Your task to perform on an android device: Add "razer thresher" to the cart on amazon.com, then select checkout. Image 0: 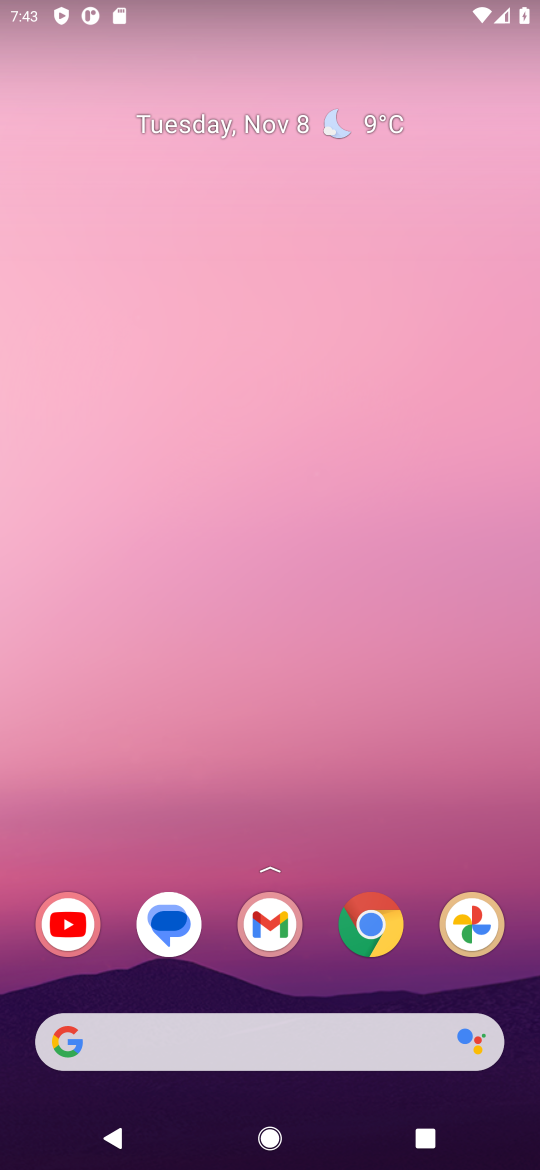
Step 0: click (241, 1038)
Your task to perform on an android device: Add "razer thresher" to the cart on amazon.com, then select checkout. Image 1: 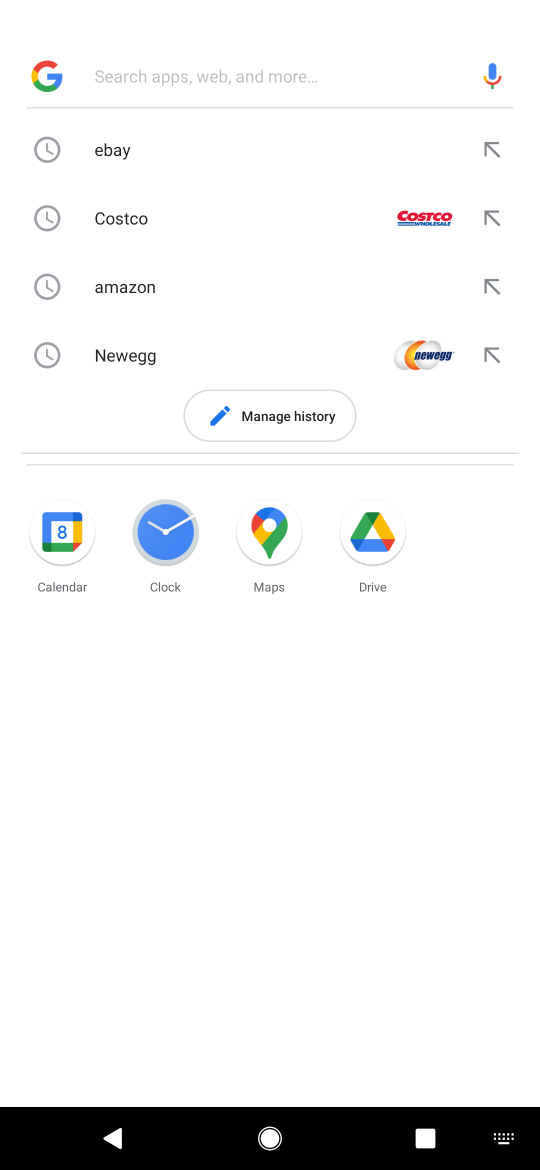
Step 1: click (136, 282)
Your task to perform on an android device: Add "razer thresher" to the cart on amazon.com, then select checkout. Image 2: 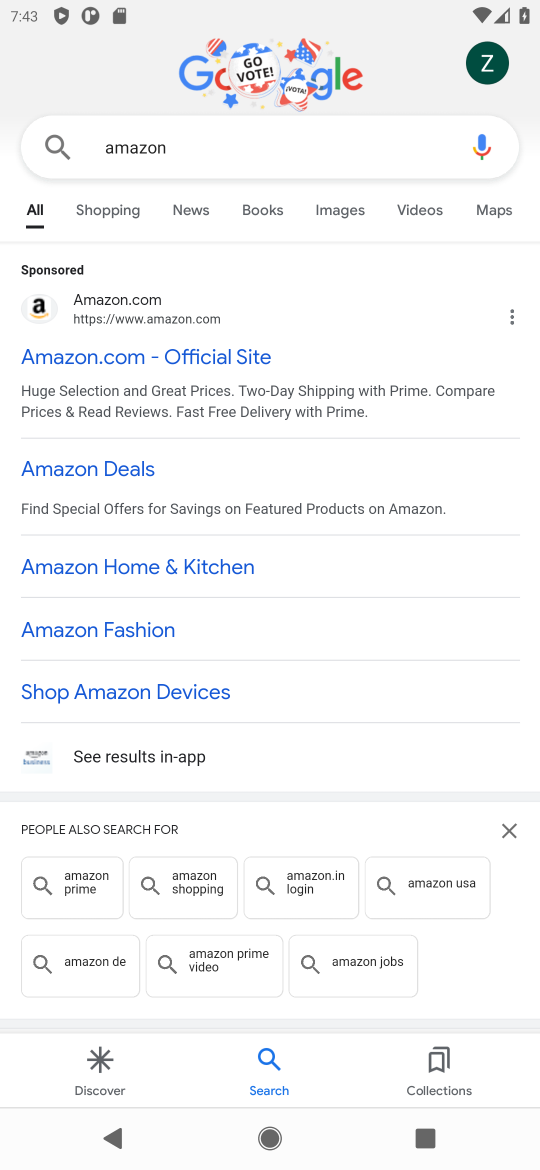
Step 2: click (93, 309)
Your task to perform on an android device: Add "razer thresher" to the cart on amazon.com, then select checkout. Image 3: 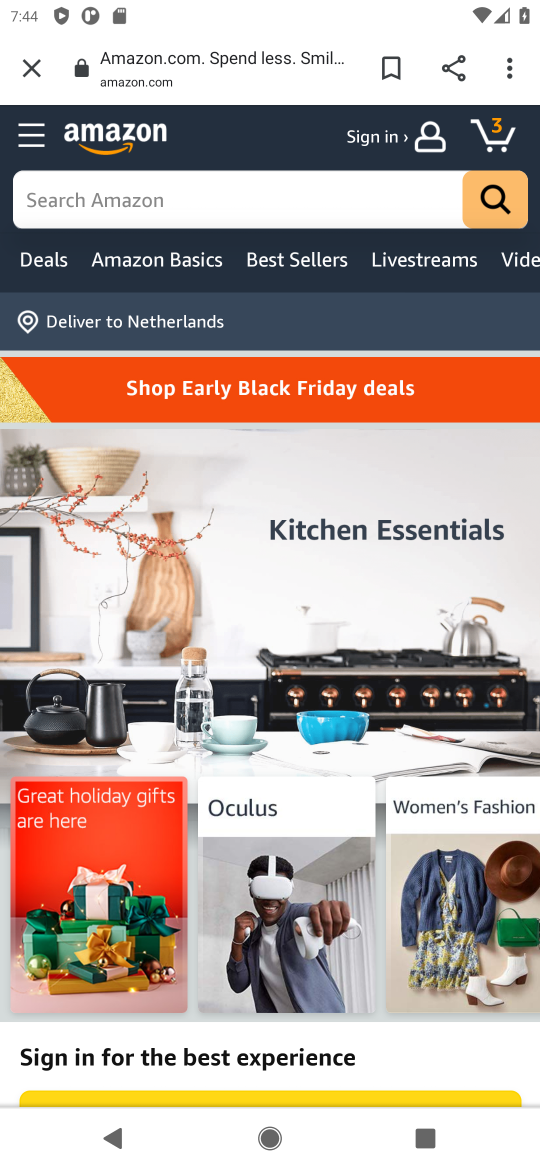
Step 3: click (93, 309)
Your task to perform on an android device: Add "razer thresher" to the cart on amazon.com, then select checkout. Image 4: 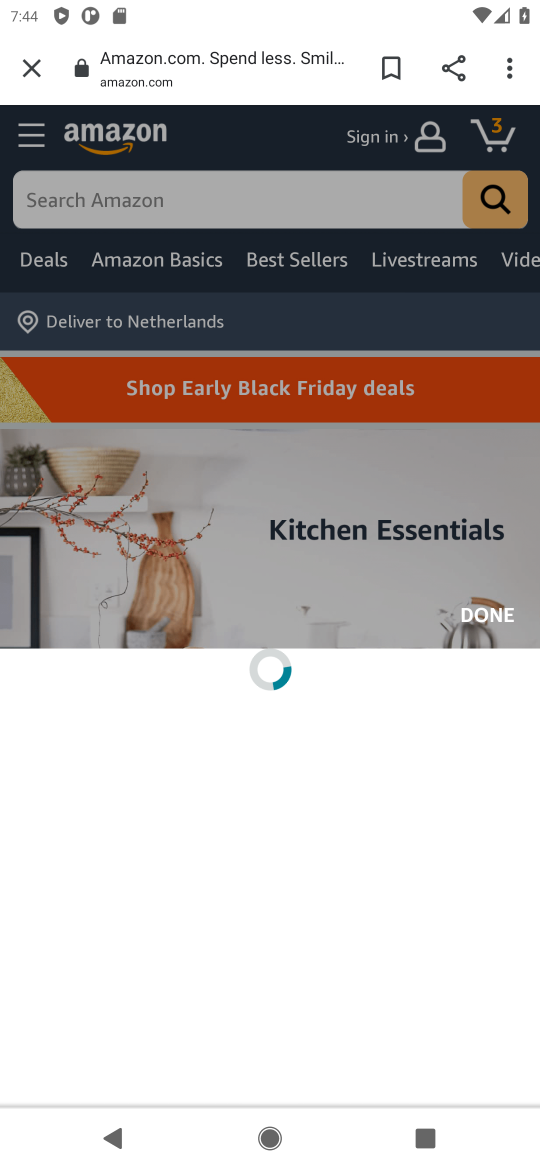
Step 4: click (93, 309)
Your task to perform on an android device: Add "razer thresher" to the cart on amazon.com, then select checkout. Image 5: 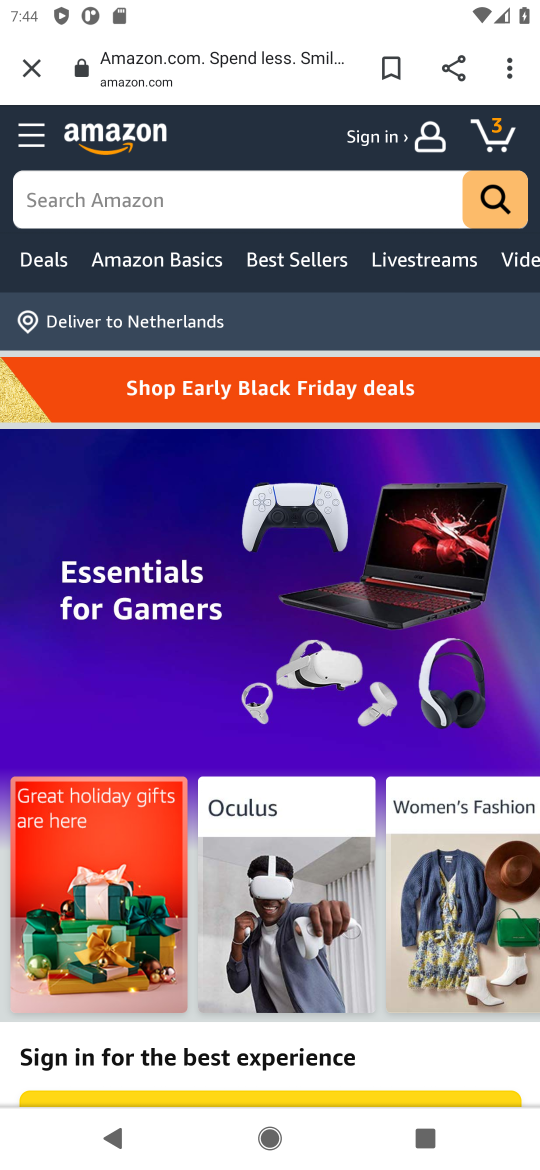
Step 5: click (245, 688)
Your task to perform on an android device: Add "razer thresher" to the cart on amazon.com, then select checkout. Image 6: 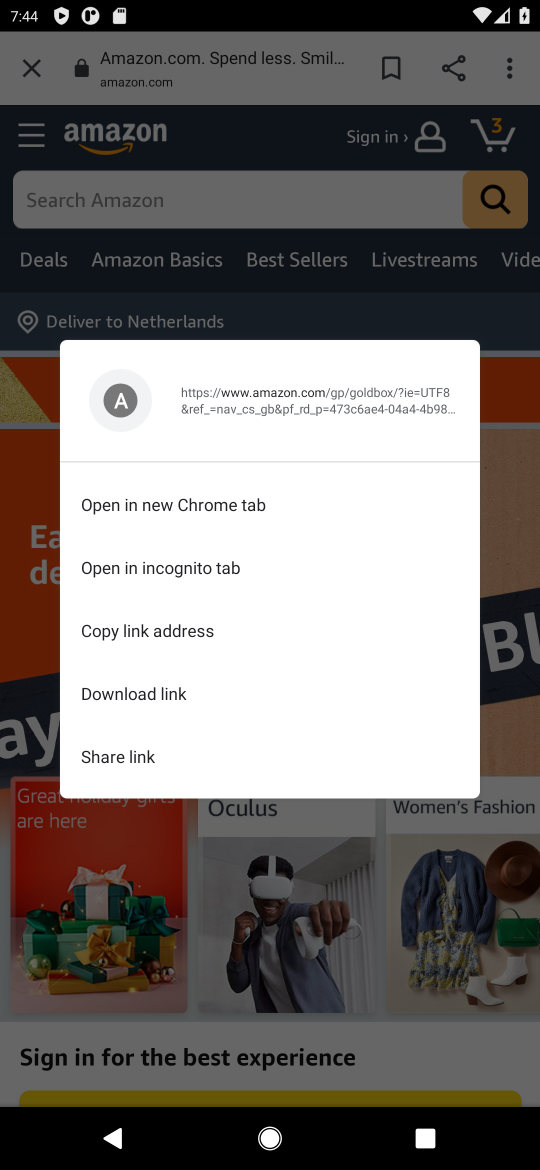
Step 6: click (132, 201)
Your task to perform on an android device: Add "razer thresher" to the cart on amazon.com, then select checkout. Image 7: 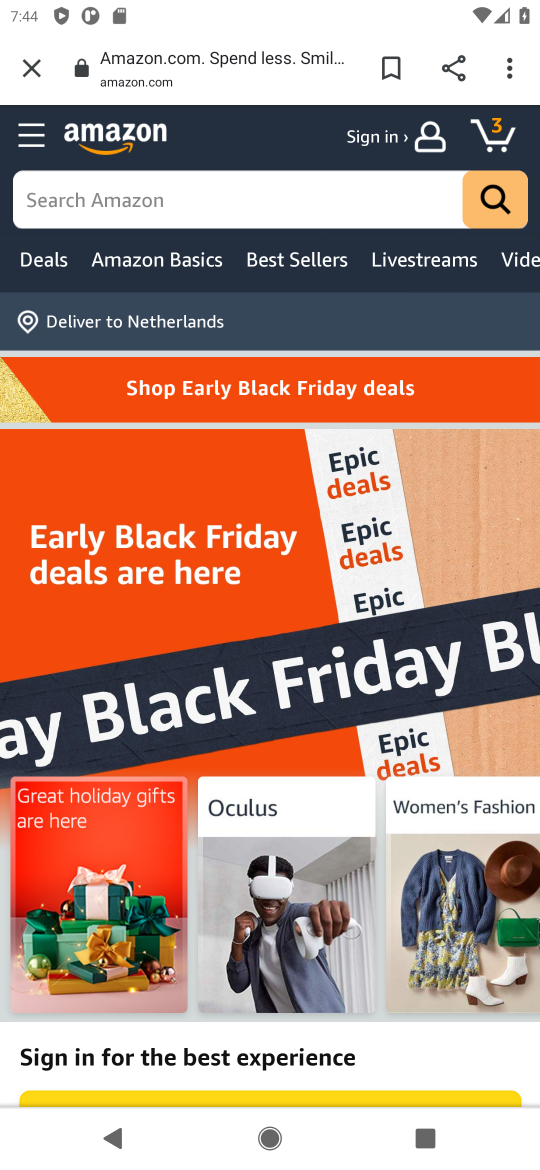
Step 7: click (132, 201)
Your task to perform on an android device: Add "razer thresher" to the cart on amazon.com, then select checkout. Image 8: 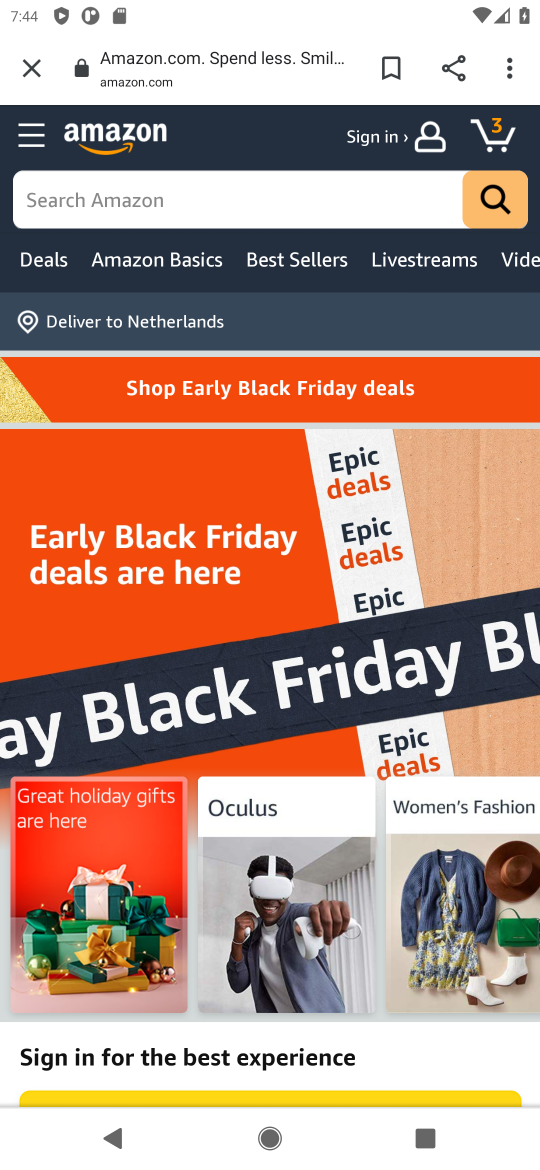
Step 8: click (132, 201)
Your task to perform on an android device: Add "razer thresher" to the cart on amazon.com, then select checkout. Image 9: 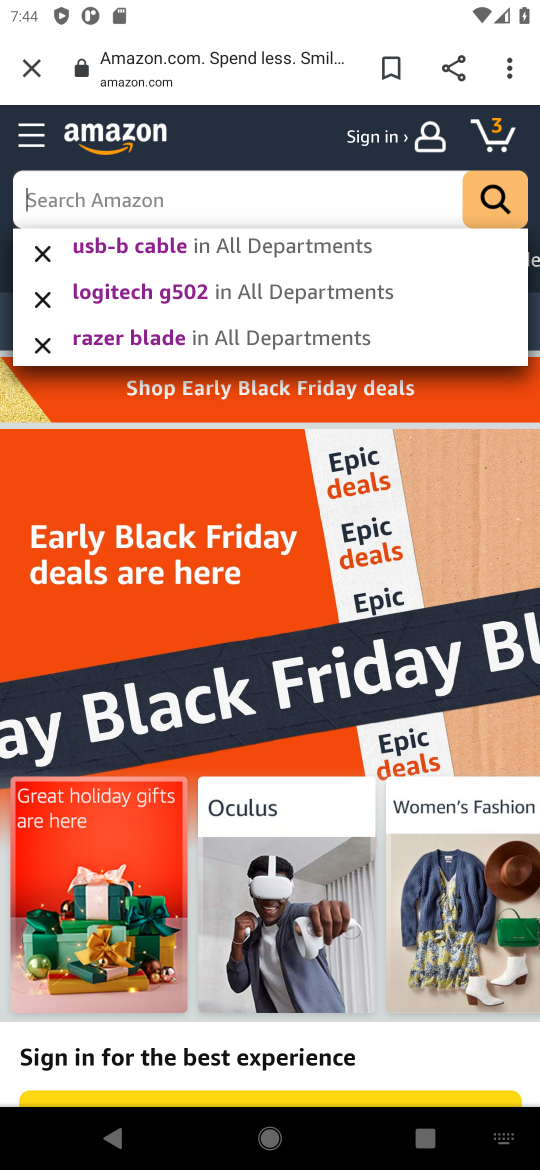
Step 9: click (215, 196)
Your task to perform on an android device: Add "razer thresher" to the cart on amazon.com, then select checkout. Image 10: 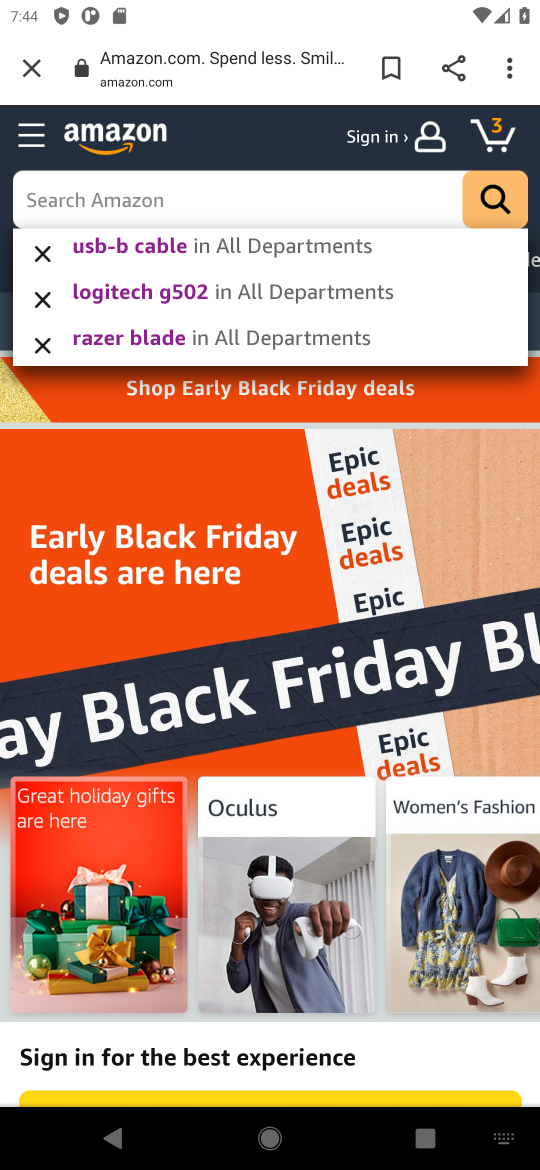
Step 10: type "razer thresher"
Your task to perform on an android device: Add "razer thresher" to the cart on amazon.com, then select checkout. Image 11: 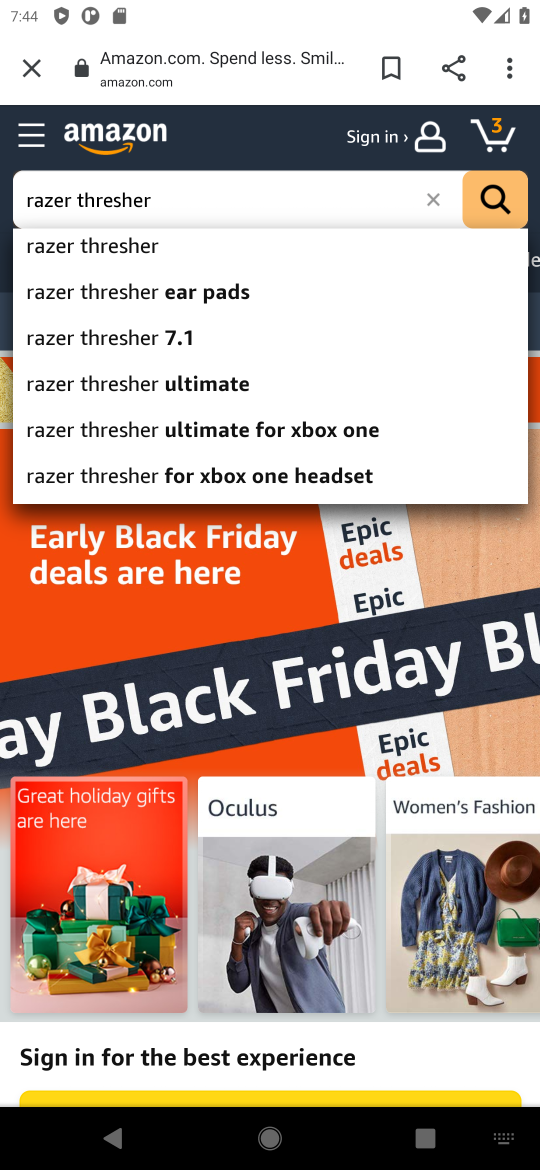
Step 11: click (112, 248)
Your task to perform on an android device: Add "razer thresher" to the cart on amazon.com, then select checkout. Image 12: 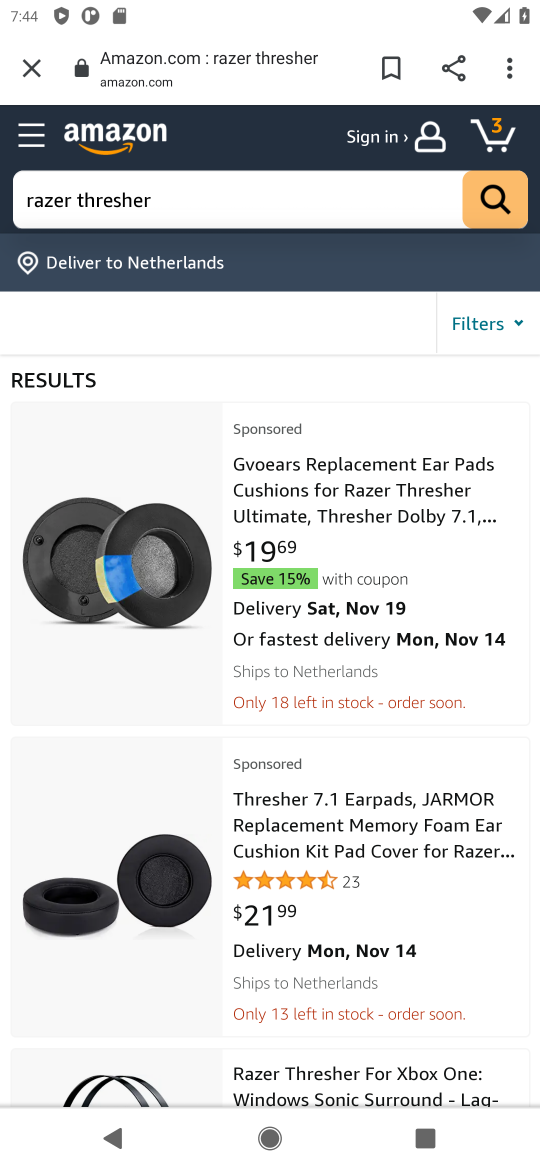
Step 12: click (279, 474)
Your task to perform on an android device: Add "razer thresher" to the cart on amazon.com, then select checkout. Image 13: 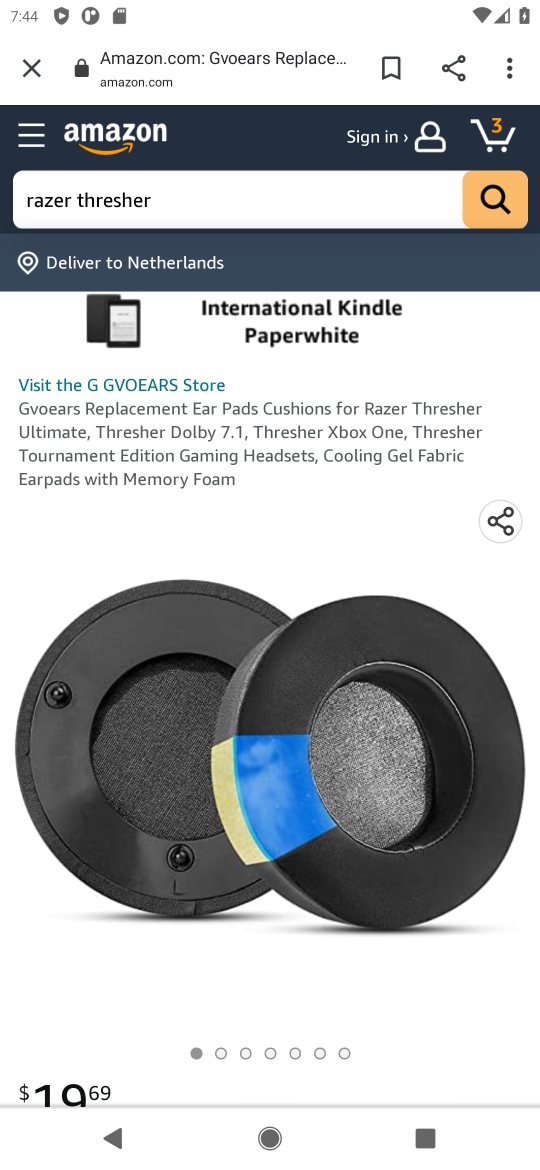
Step 13: drag from (300, 918) to (332, 657)
Your task to perform on an android device: Add "razer thresher" to the cart on amazon.com, then select checkout. Image 14: 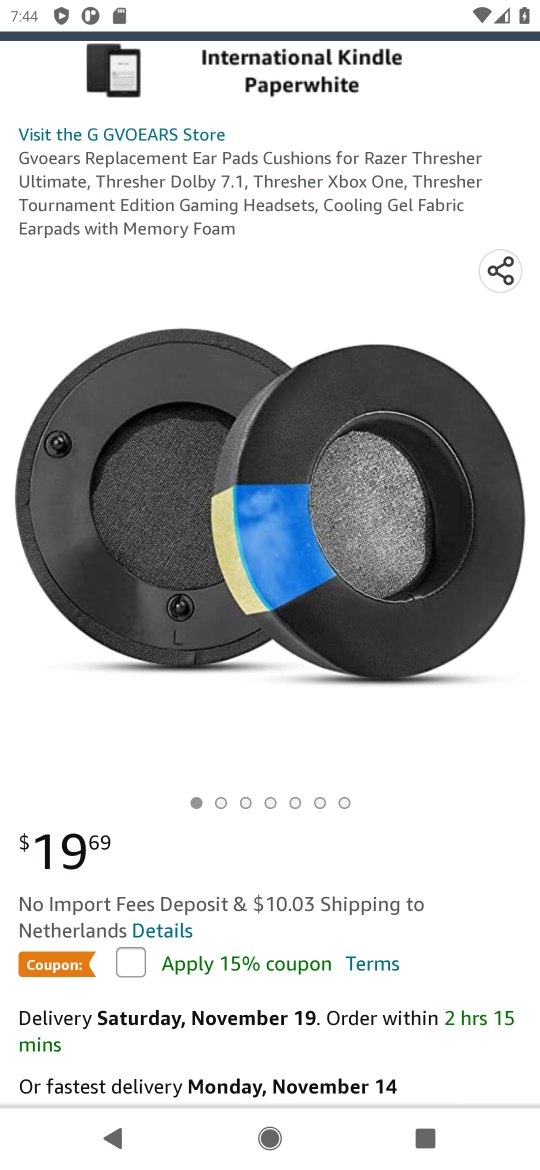
Step 14: drag from (296, 1005) to (291, 683)
Your task to perform on an android device: Add "razer thresher" to the cart on amazon.com, then select checkout. Image 15: 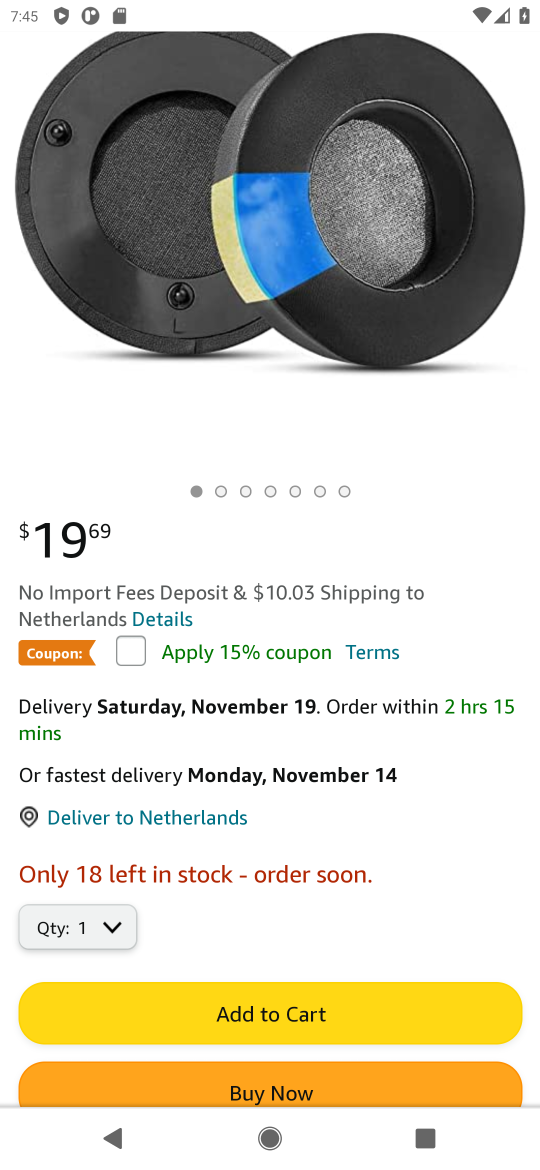
Step 15: click (257, 1005)
Your task to perform on an android device: Add "razer thresher" to the cart on amazon.com, then select checkout. Image 16: 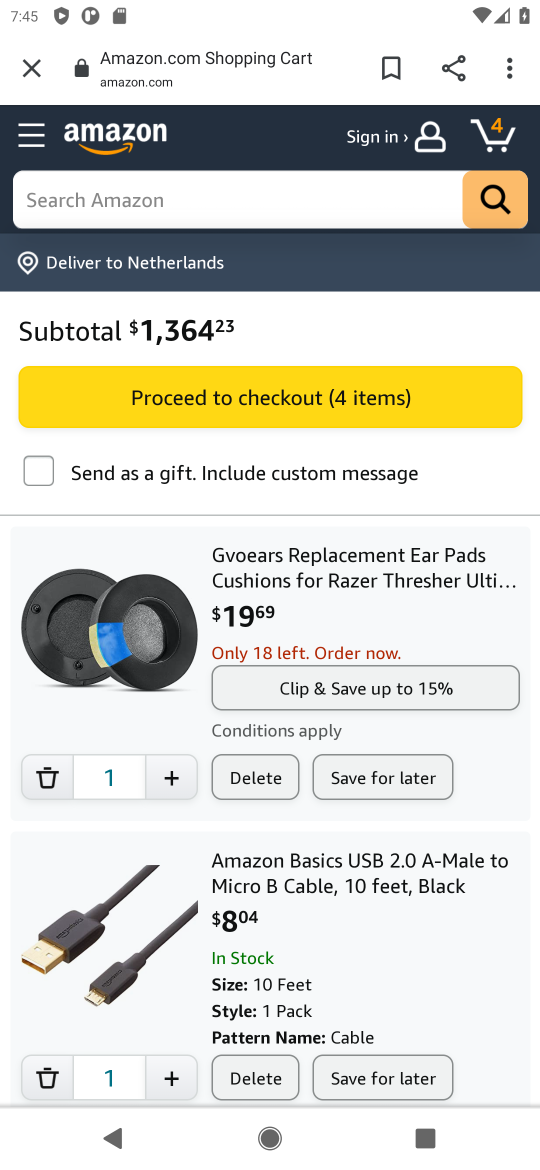
Step 16: click (262, 394)
Your task to perform on an android device: Add "razer thresher" to the cart on amazon.com, then select checkout. Image 17: 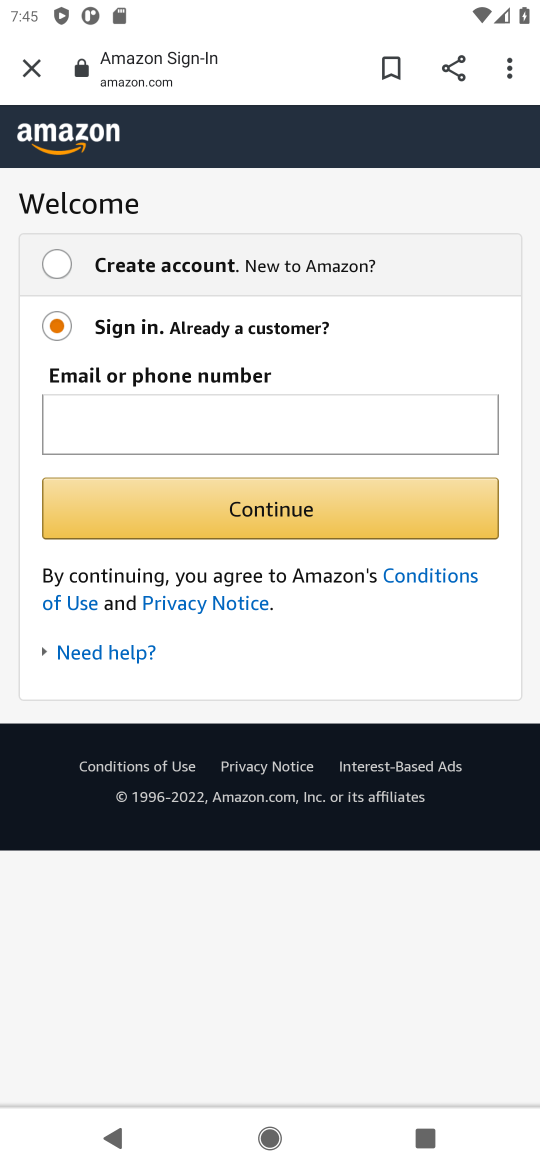
Step 17: task complete